Your task to perform on an android device: Show me recent news Image 0: 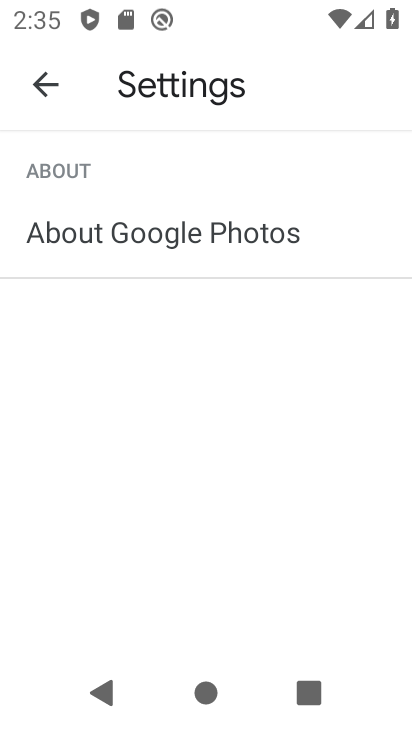
Step 0: press home button
Your task to perform on an android device: Show me recent news Image 1: 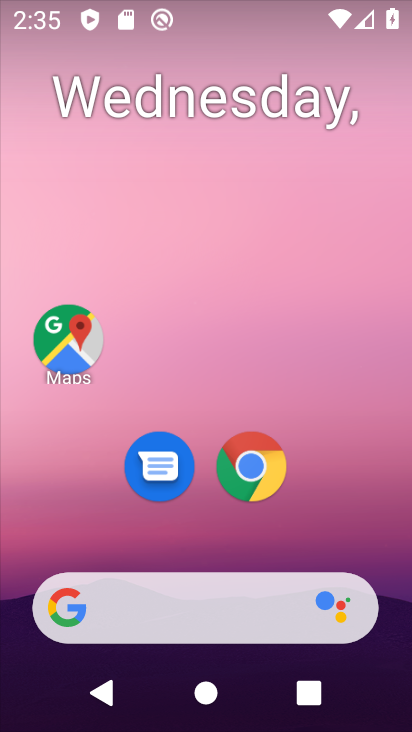
Step 1: click (63, 610)
Your task to perform on an android device: Show me recent news Image 2: 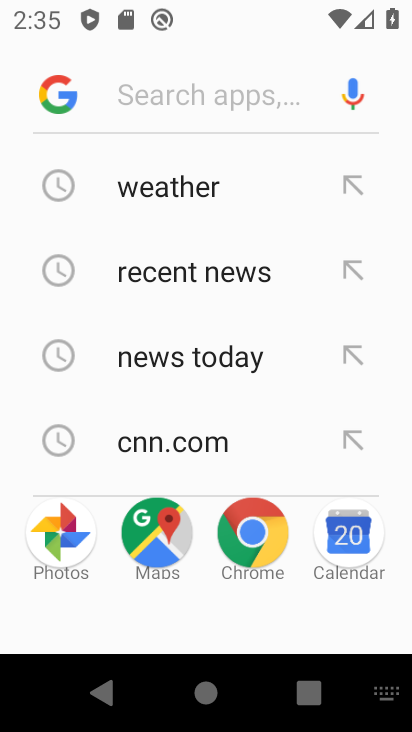
Step 2: click (57, 97)
Your task to perform on an android device: Show me recent news Image 3: 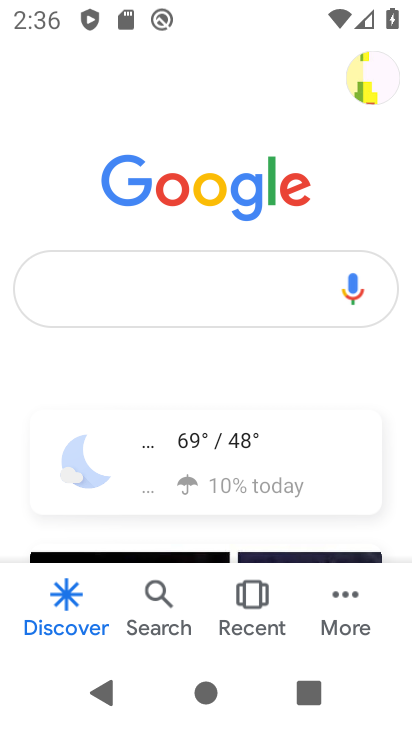
Step 3: click (194, 291)
Your task to perform on an android device: Show me recent news Image 4: 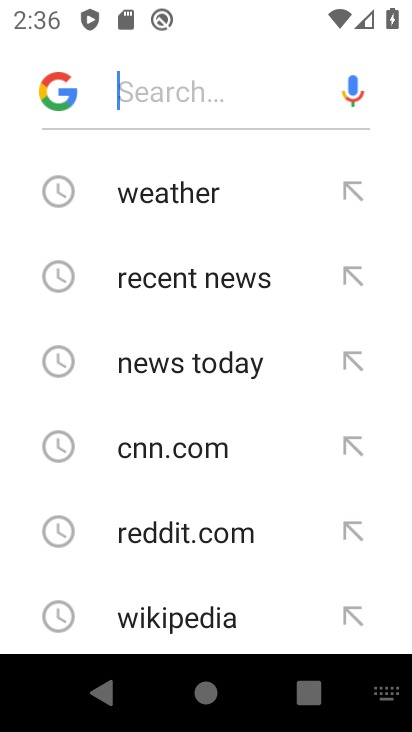
Step 4: click (210, 274)
Your task to perform on an android device: Show me recent news Image 5: 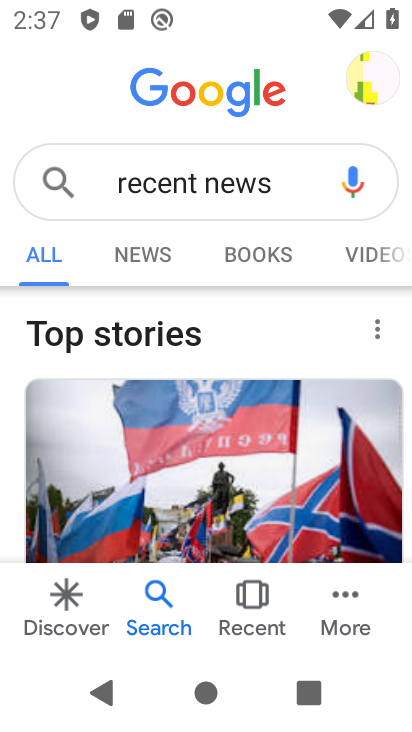
Step 5: task complete